Your task to perform on an android device: Go to Yahoo.com Image 0: 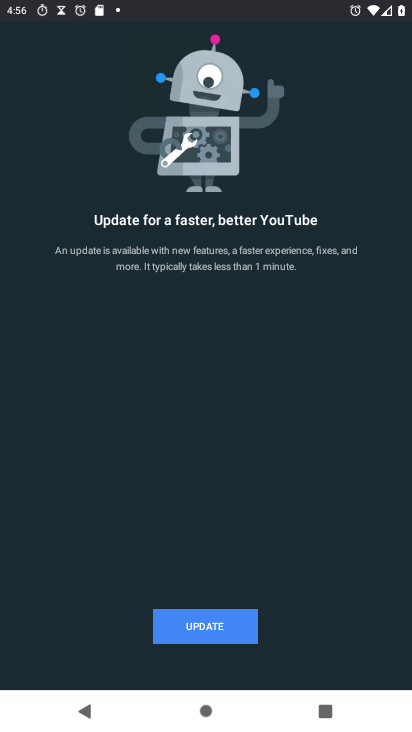
Step 0: press home button
Your task to perform on an android device: Go to Yahoo.com Image 1: 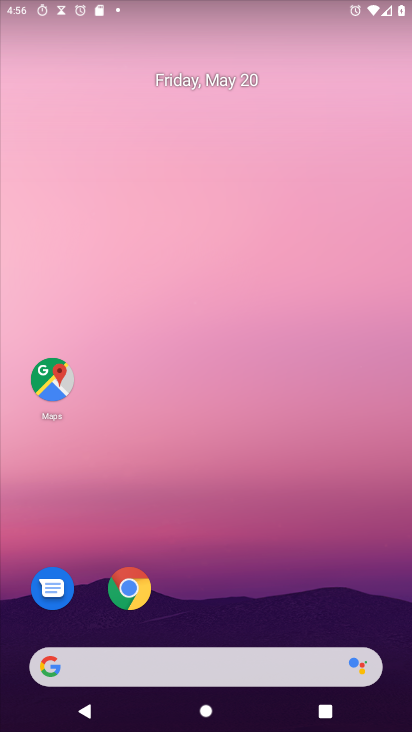
Step 1: drag from (241, 584) to (204, 122)
Your task to perform on an android device: Go to Yahoo.com Image 2: 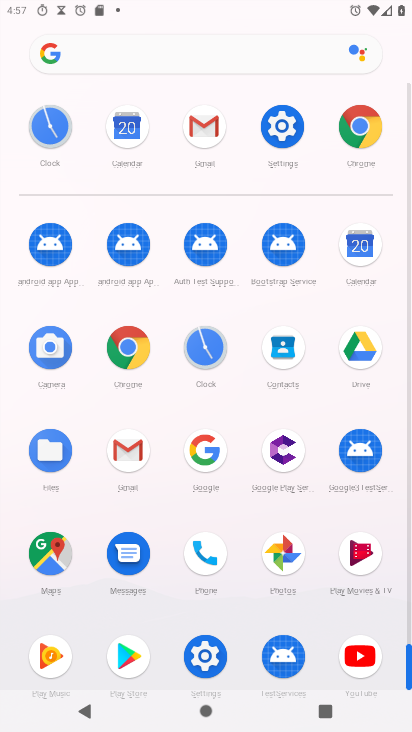
Step 2: click (129, 352)
Your task to perform on an android device: Go to Yahoo.com Image 3: 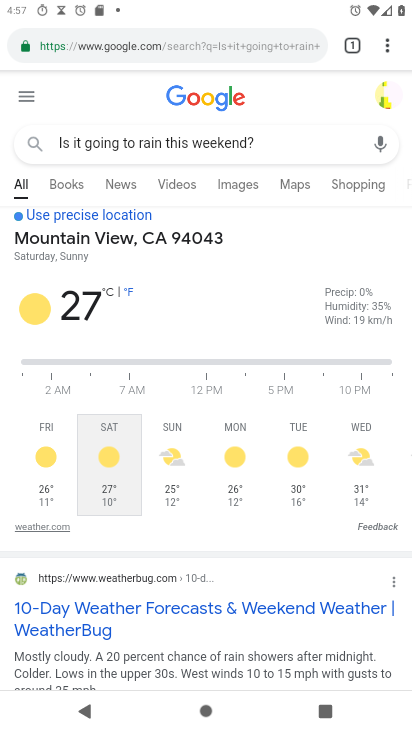
Step 3: click (254, 43)
Your task to perform on an android device: Go to Yahoo.com Image 4: 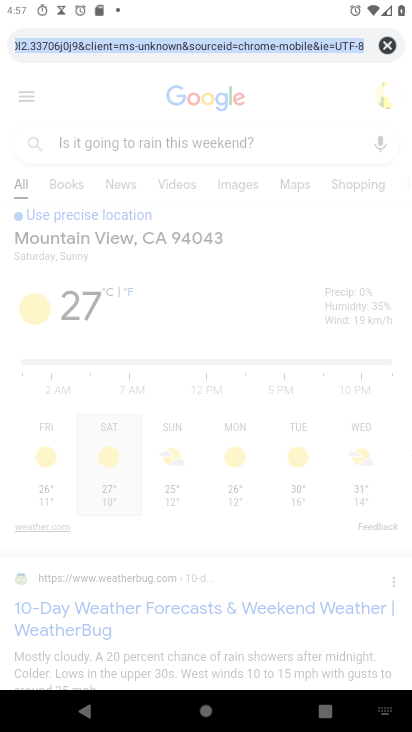
Step 4: click (381, 46)
Your task to perform on an android device: Go to Yahoo.com Image 5: 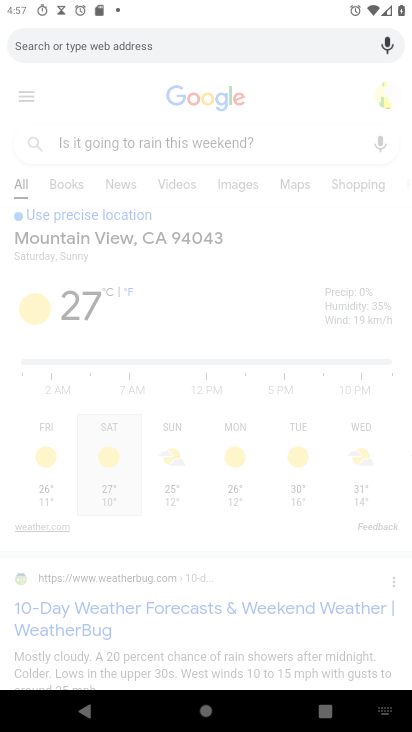
Step 5: type "Yahoo.com"
Your task to perform on an android device: Go to Yahoo.com Image 6: 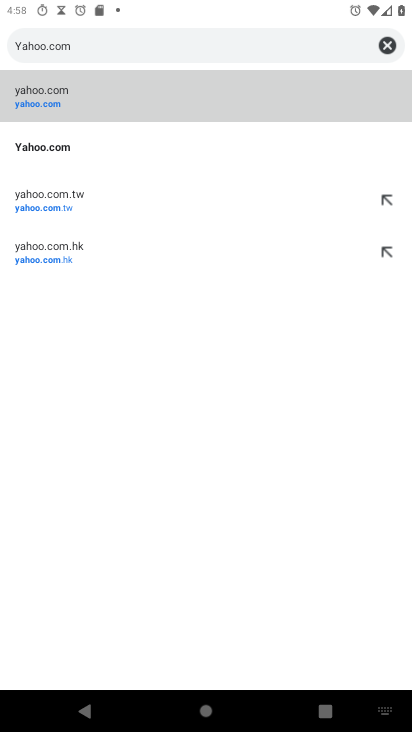
Step 6: click (55, 105)
Your task to perform on an android device: Go to Yahoo.com Image 7: 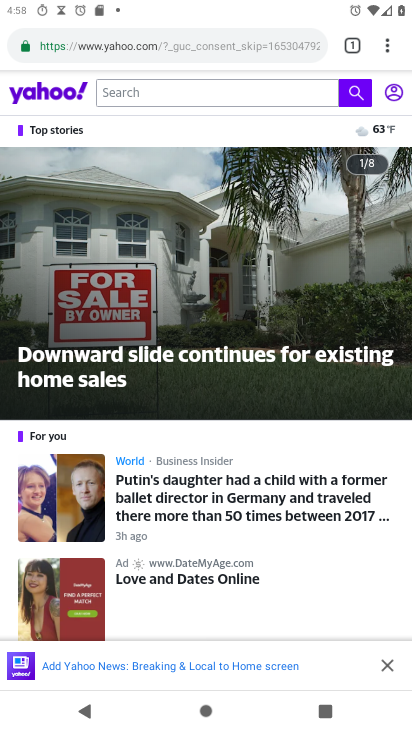
Step 7: task complete